Your task to perform on an android device: add a contact in the contacts app Image 0: 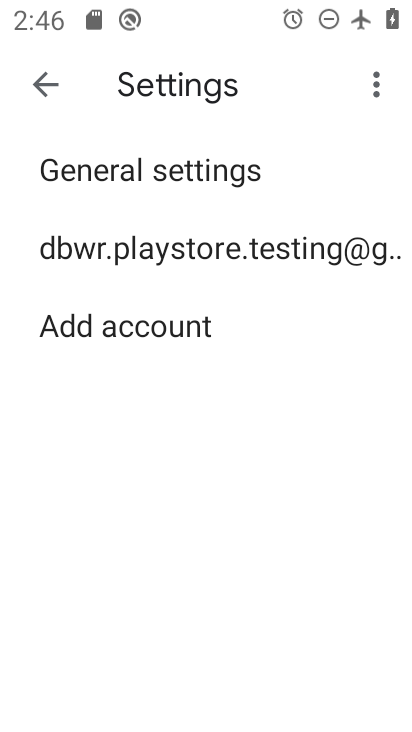
Step 0: press home button
Your task to perform on an android device: add a contact in the contacts app Image 1: 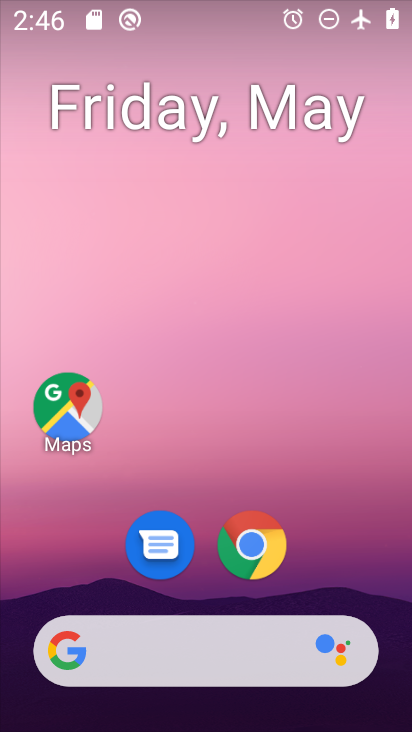
Step 1: drag from (294, 560) to (276, 335)
Your task to perform on an android device: add a contact in the contacts app Image 2: 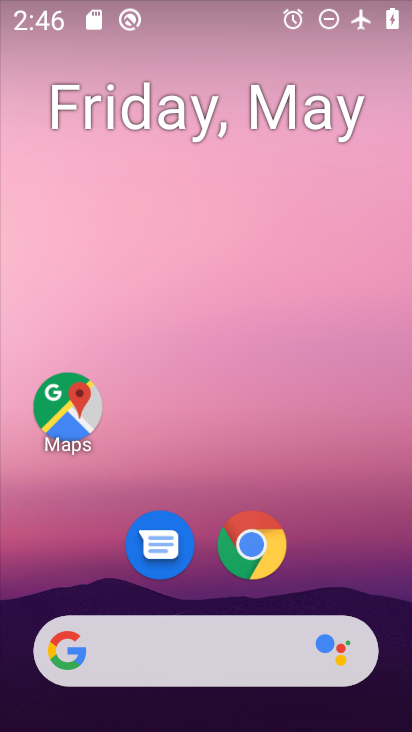
Step 2: drag from (331, 581) to (282, 269)
Your task to perform on an android device: add a contact in the contacts app Image 3: 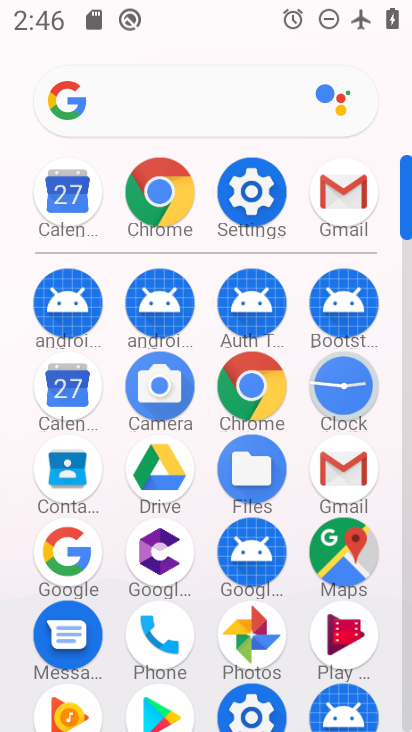
Step 3: click (169, 628)
Your task to perform on an android device: add a contact in the contacts app Image 4: 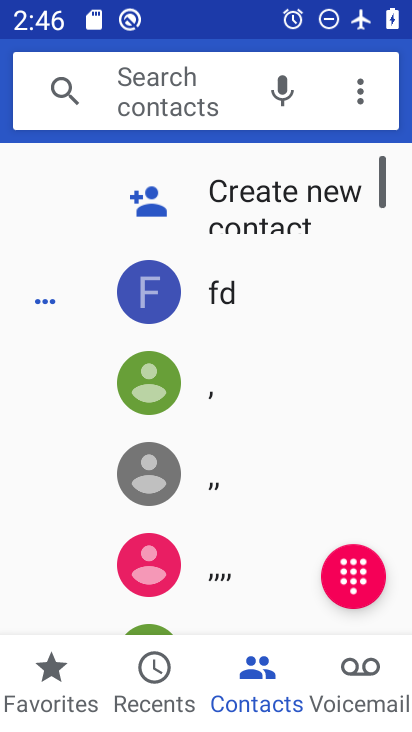
Step 4: click (159, 189)
Your task to perform on an android device: add a contact in the contacts app Image 5: 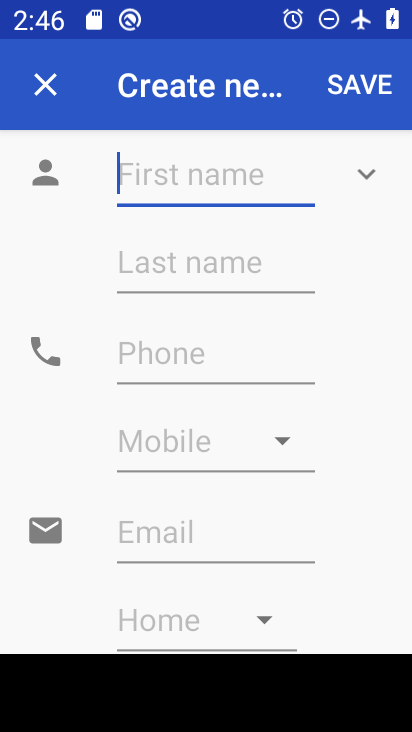
Step 5: click (158, 170)
Your task to perform on an android device: add a contact in the contacts app Image 6: 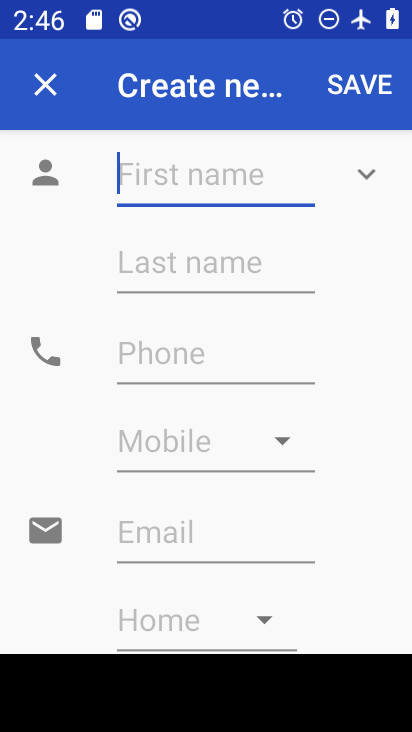
Step 6: type "jhjhjhjjf"
Your task to perform on an android device: add a contact in the contacts app Image 7: 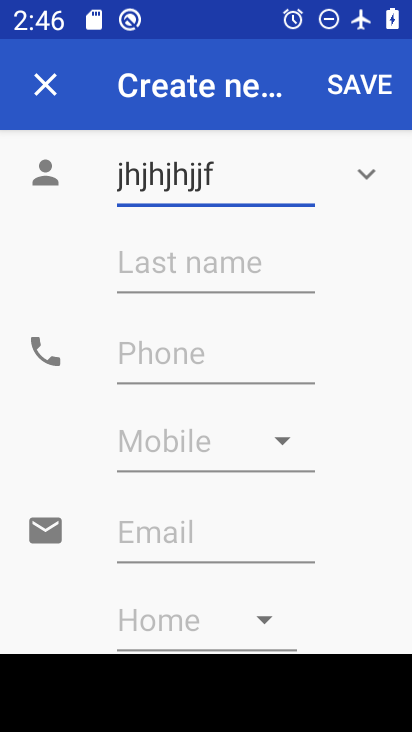
Step 7: click (185, 352)
Your task to perform on an android device: add a contact in the contacts app Image 8: 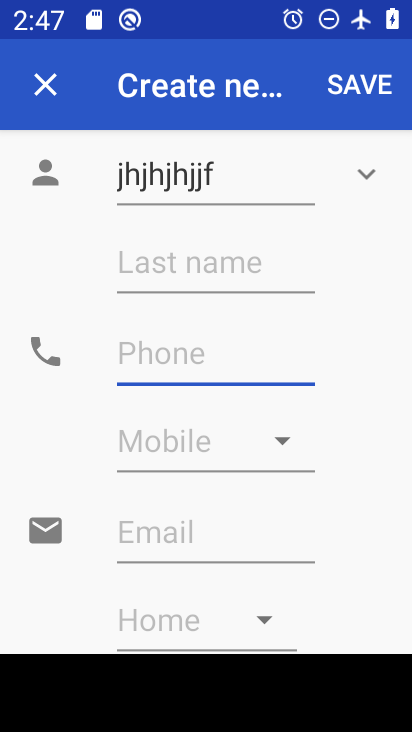
Step 8: type "2345678"
Your task to perform on an android device: add a contact in the contacts app Image 9: 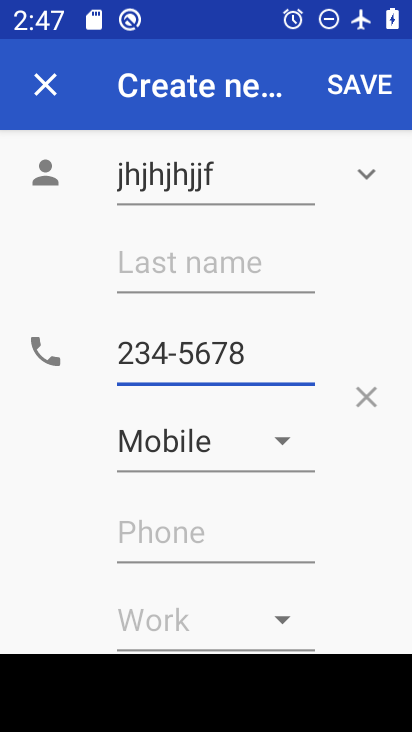
Step 9: click (362, 84)
Your task to perform on an android device: add a contact in the contacts app Image 10: 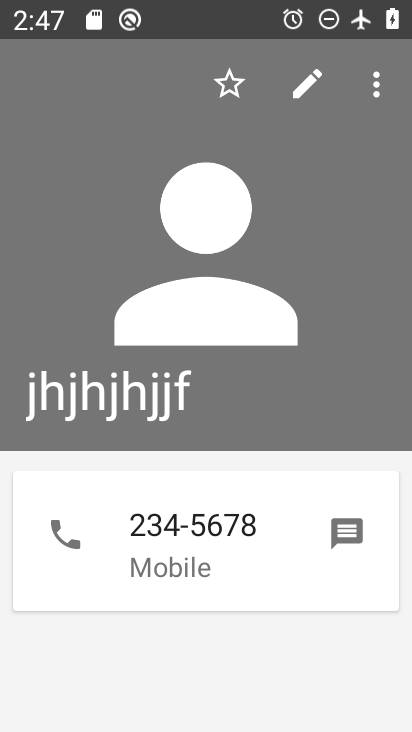
Step 10: task complete